Your task to perform on an android device: open the mobile data screen to see how much data has been used Image 0: 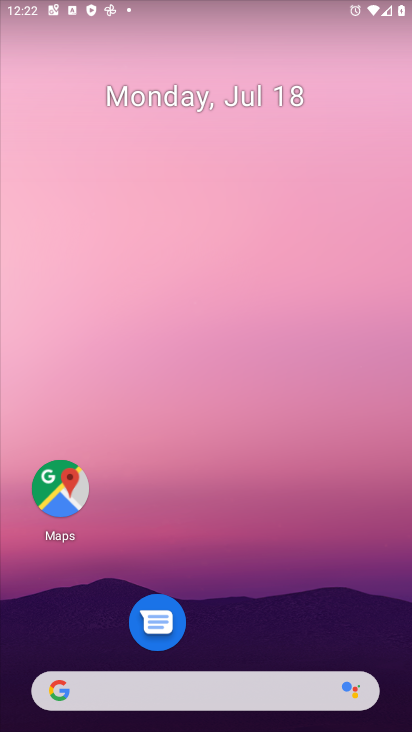
Step 0: drag from (291, 730) to (256, 111)
Your task to perform on an android device: open the mobile data screen to see how much data has been used Image 1: 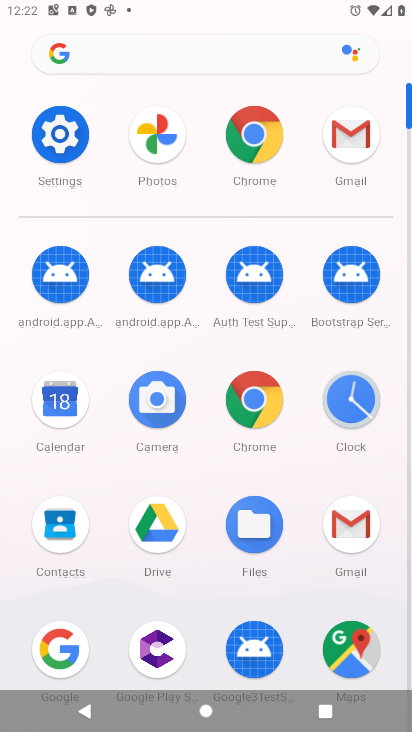
Step 1: click (46, 147)
Your task to perform on an android device: open the mobile data screen to see how much data has been used Image 2: 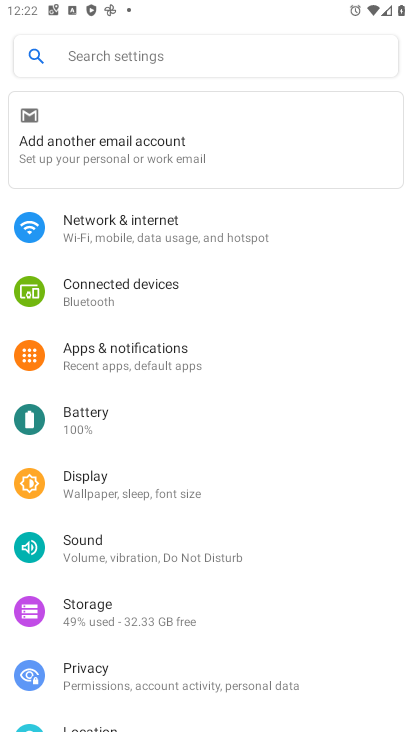
Step 2: click (216, 233)
Your task to perform on an android device: open the mobile data screen to see how much data has been used Image 3: 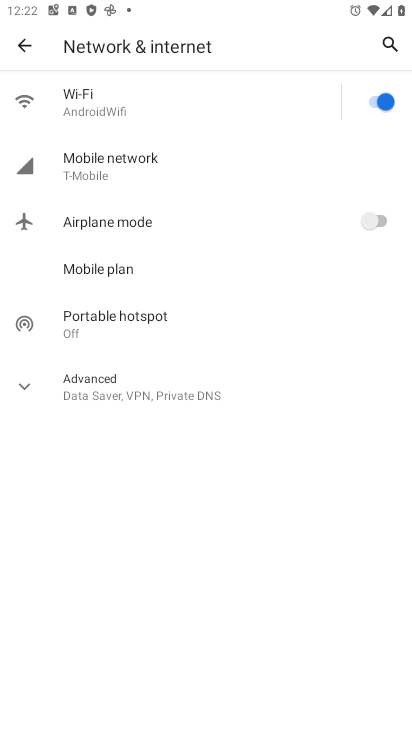
Step 3: click (130, 168)
Your task to perform on an android device: open the mobile data screen to see how much data has been used Image 4: 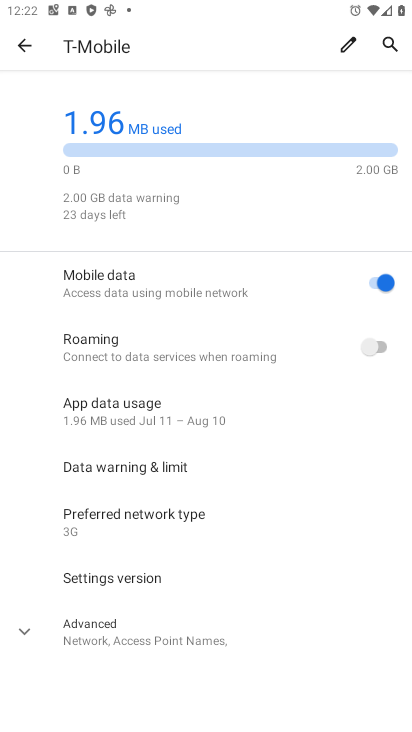
Step 4: click (218, 416)
Your task to perform on an android device: open the mobile data screen to see how much data has been used Image 5: 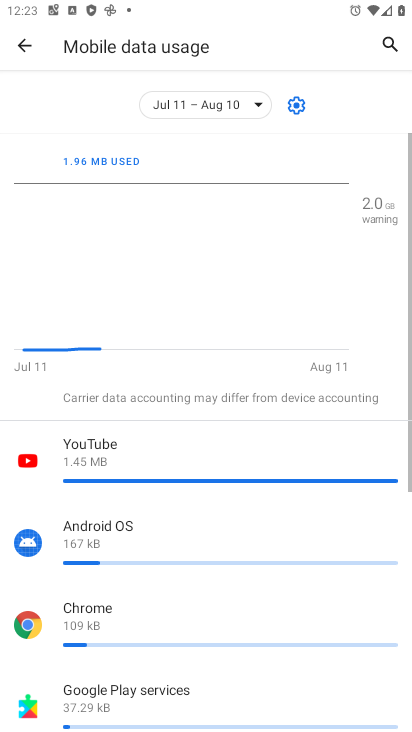
Step 5: task complete